Your task to perform on an android device: turn off improve location accuracy Image 0: 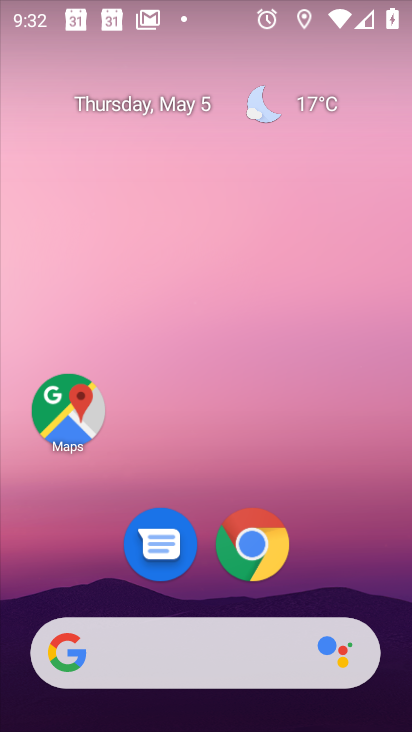
Step 0: drag from (389, 617) to (297, 178)
Your task to perform on an android device: turn off improve location accuracy Image 1: 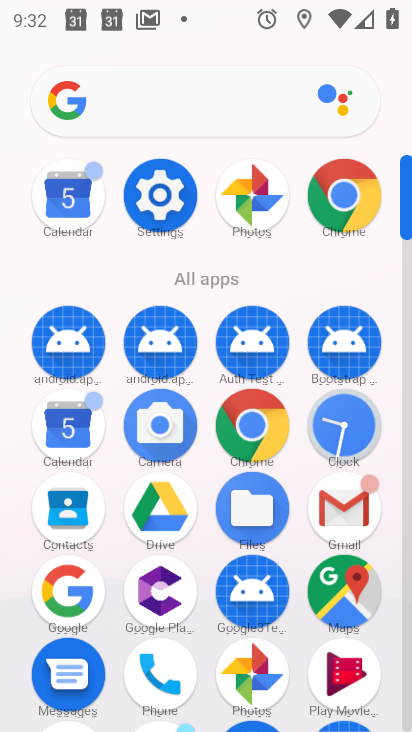
Step 1: click (131, 225)
Your task to perform on an android device: turn off improve location accuracy Image 2: 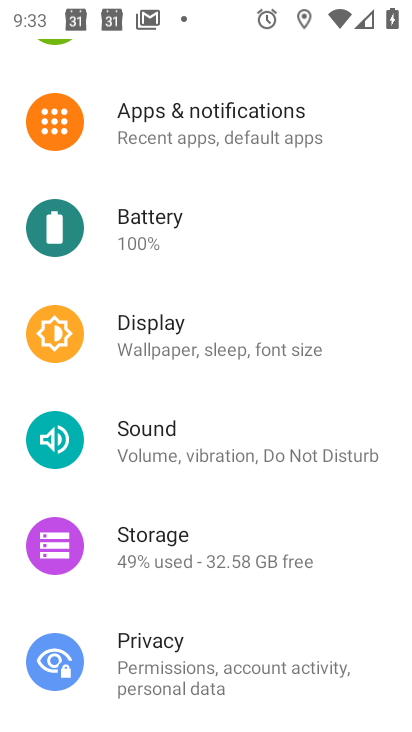
Step 2: drag from (172, 321) to (216, 612)
Your task to perform on an android device: turn off improve location accuracy Image 3: 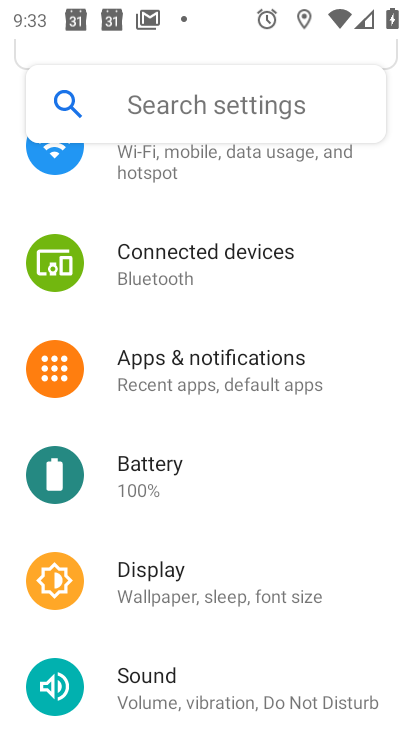
Step 3: drag from (206, 608) to (208, 296)
Your task to perform on an android device: turn off improve location accuracy Image 4: 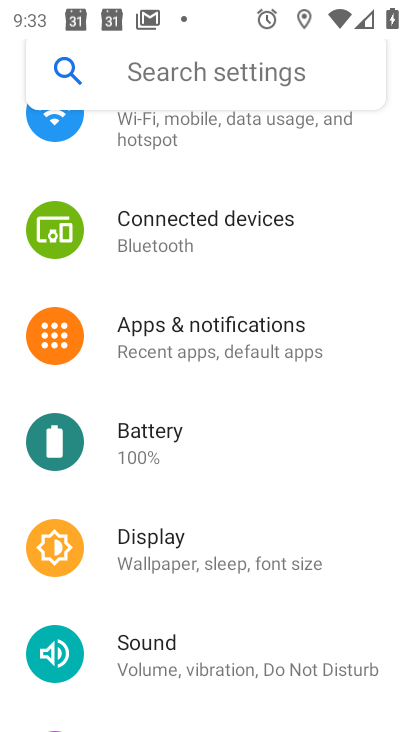
Step 4: drag from (208, 619) to (222, 365)
Your task to perform on an android device: turn off improve location accuracy Image 5: 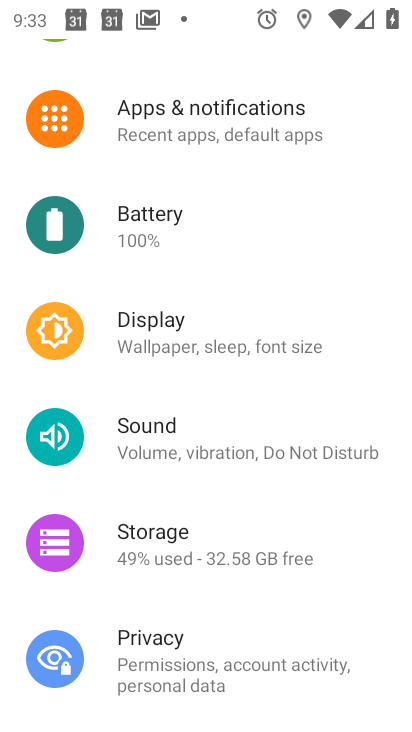
Step 5: drag from (207, 638) to (223, 389)
Your task to perform on an android device: turn off improve location accuracy Image 6: 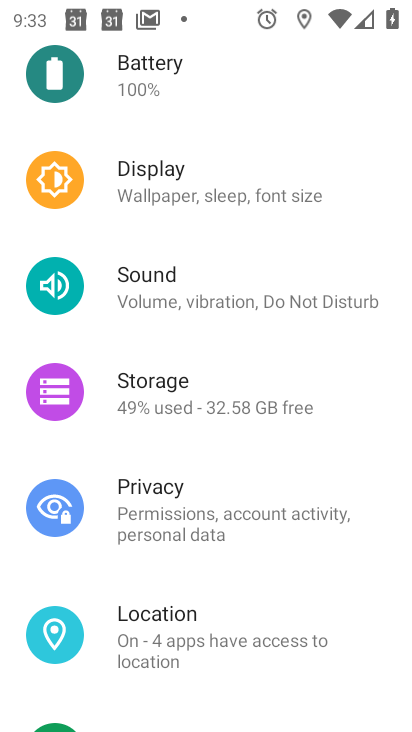
Step 6: click (198, 617)
Your task to perform on an android device: turn off improve location accuracy Image 7: 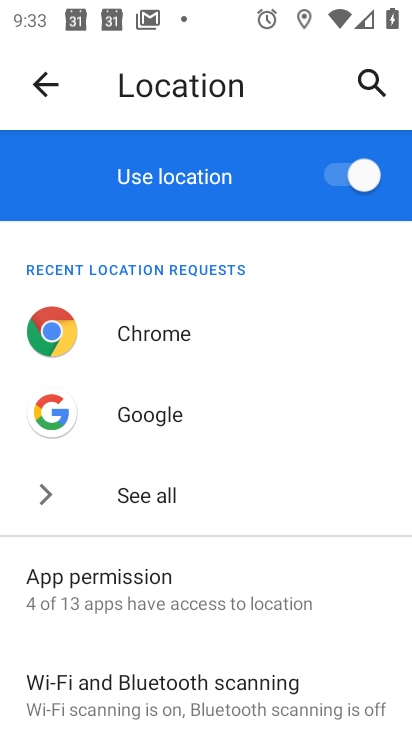
Step 7: task complete